Your task to perform on an android device: open device folders in google photos Image 0: 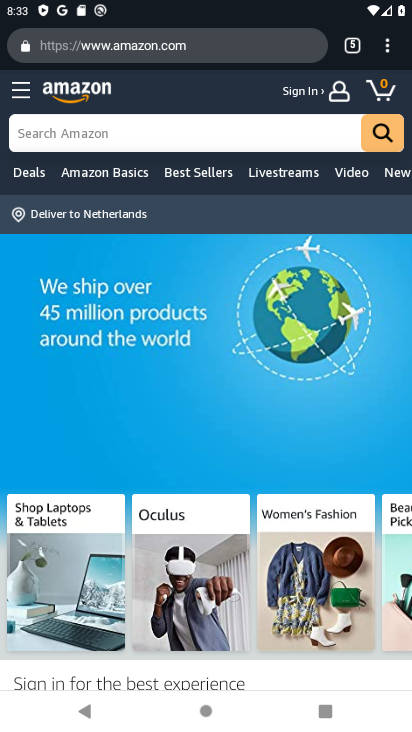
Step 0: press back button
Your task to perform on an android device: open device folders in google photos Image 1: 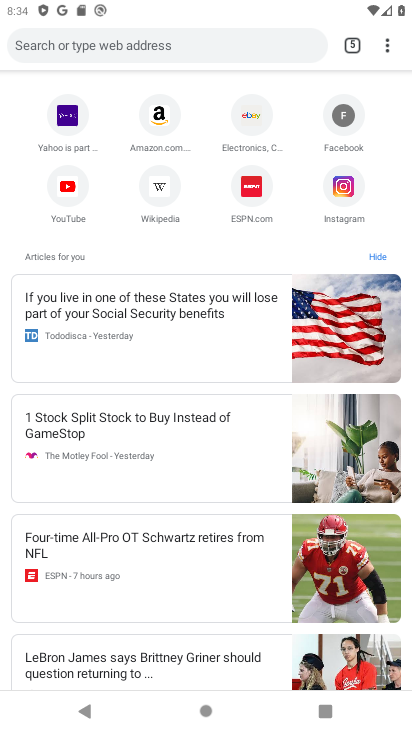
Step 1: press back button
Your task to perform on an android device: open device folders in google photos Image 2: 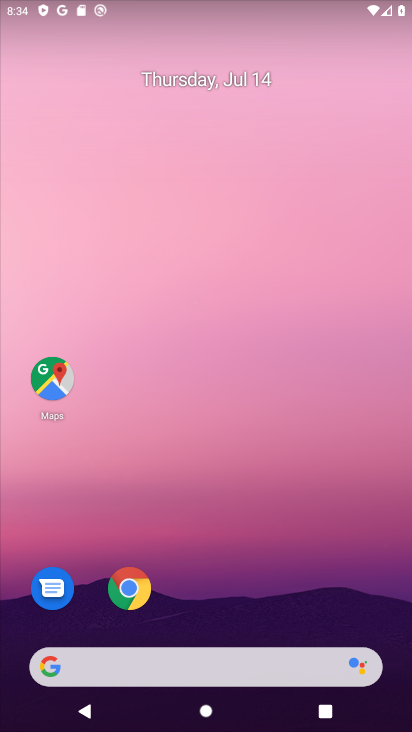
Step 2: drag from (252, 630) to (211, 272)
Your task to perform on an android device: open device folders in google photos Image 3: 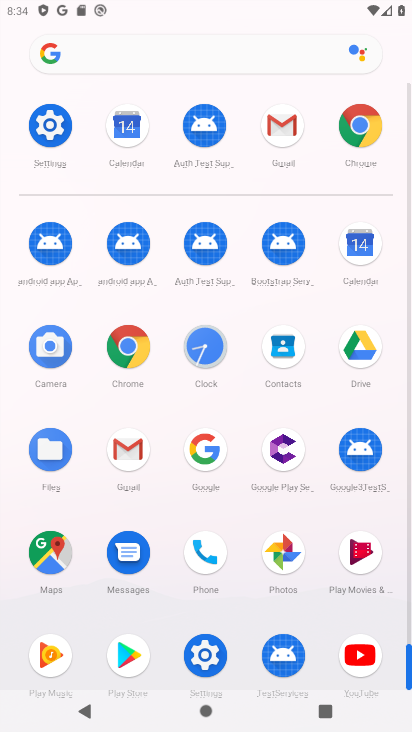
Step 3: click (270, 560)
Your task to perform on an android device: open device folders in google photos Image 4: 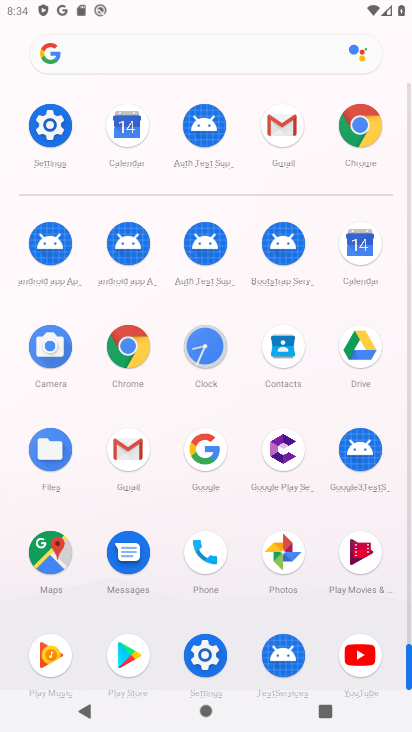
Step 4: click (270, 560)
Your task to perform on an android device: open device folders in google photos Image 5: 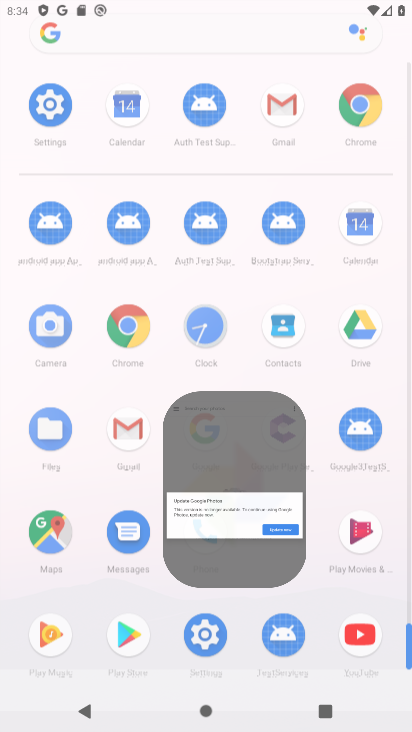
Step 5: click (272, 560)
Your task to perform on an android device: open device folders in google photos Image 6: 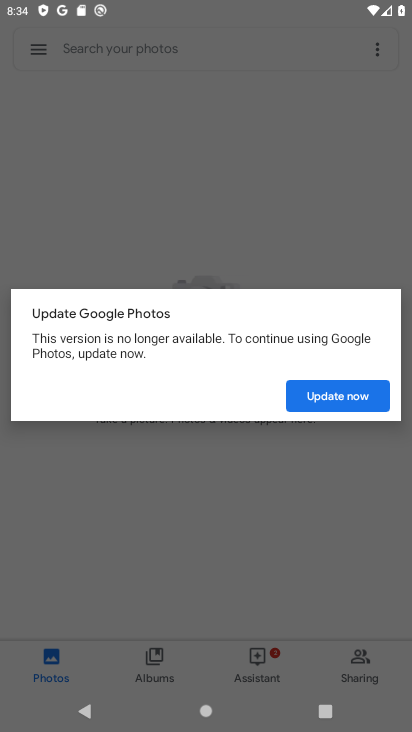
Step 6: press back button
Your task to perform on an android device: open device folders in google photos Image 7: 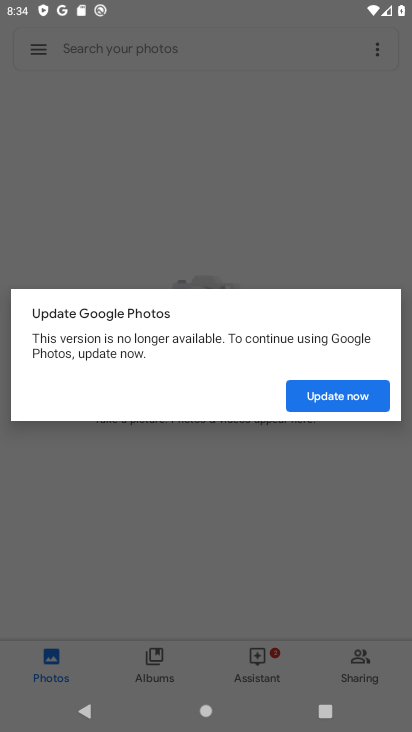
Step 7: press back button
Your task to perform on an android device: open device folders in google photos Image 8: 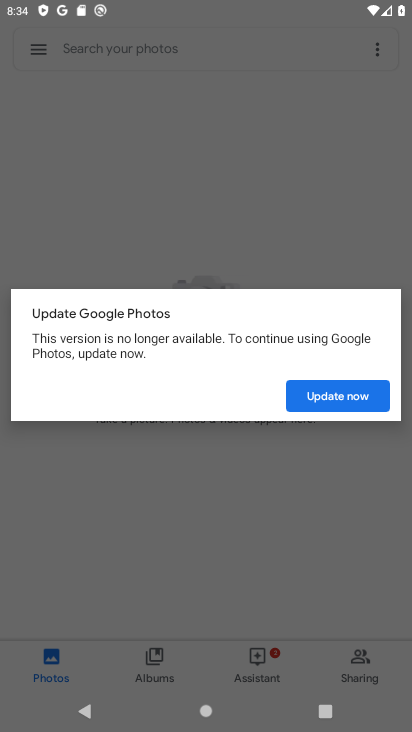
Step 8: click (109, 161)
Your task to perform on an android device: open device folders in google photos Image 9: 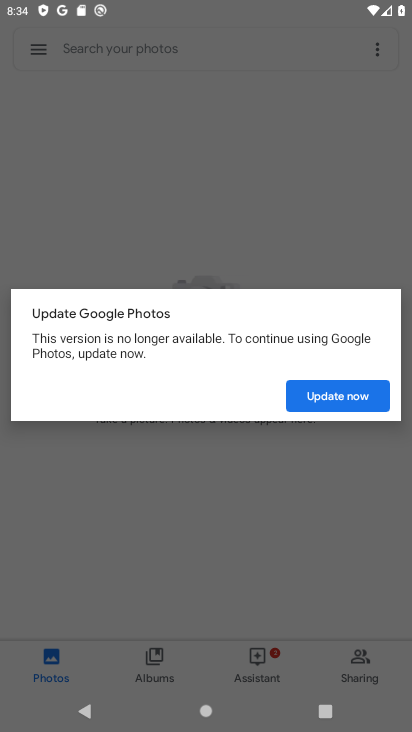
Step 9: click (117, 159)
Your task to perform on an android device: open device folders in google photos Image 10: 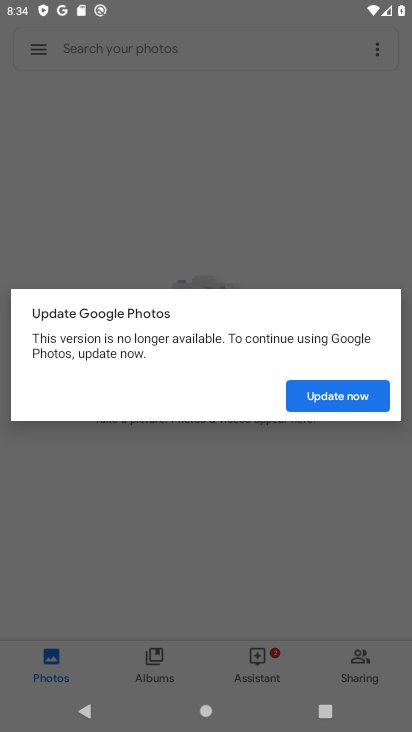
Step 10: press home button
Your task to perform on an android device: open device folders in google photos Image 11: 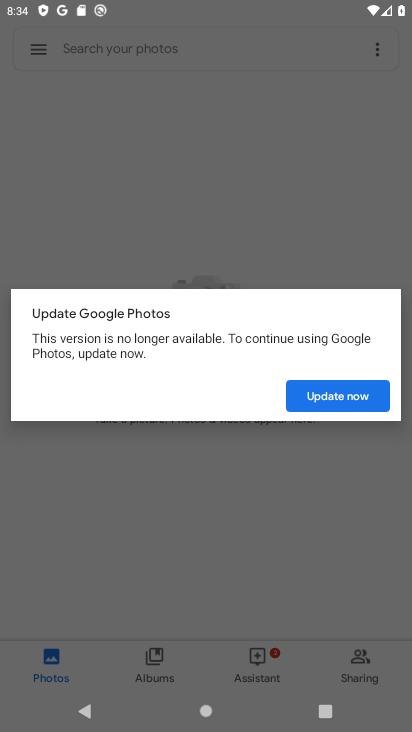
Step 11: press home button
Your task to perform on an android device: open device folders in google photos Image 12: 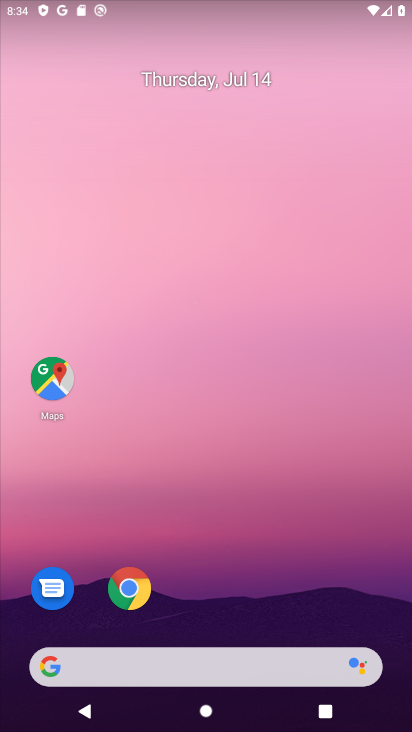
Step 12: drag from (282, 663) to (134, 258)
Your task to perform on an android device: open device folders in google photos Image 13: 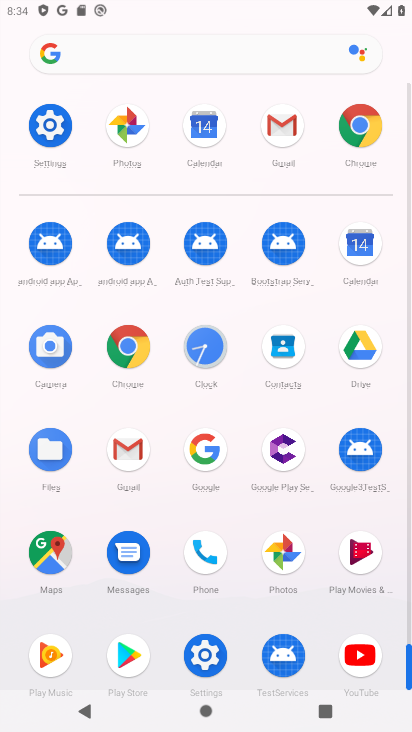
Step 13: click (279, 553)
Your task to perform on an android device: open device folders in google photos Image 14: 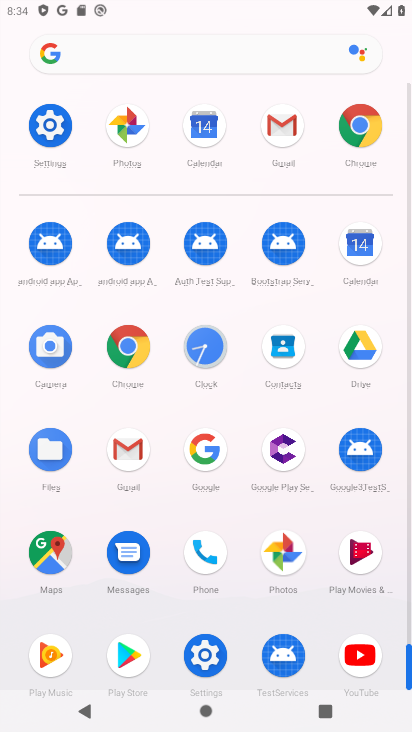
Step 14: click (288, 575)
Your task to perform on an android device: open device folders in google photos Image 15: 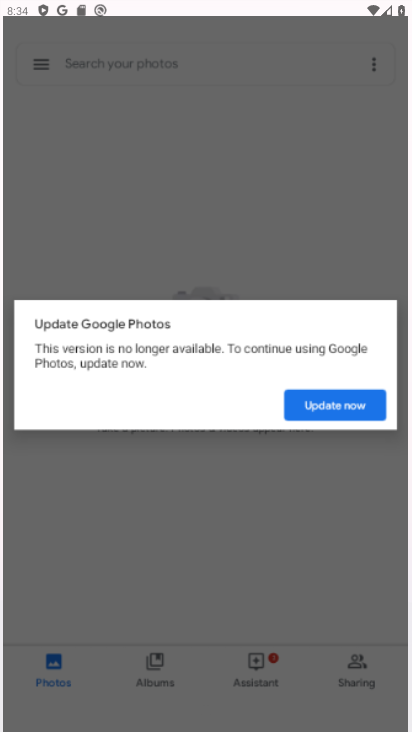
Step 15: click (288, 574)
Your task to perform on an android device: open device folders in google photos Image 16: 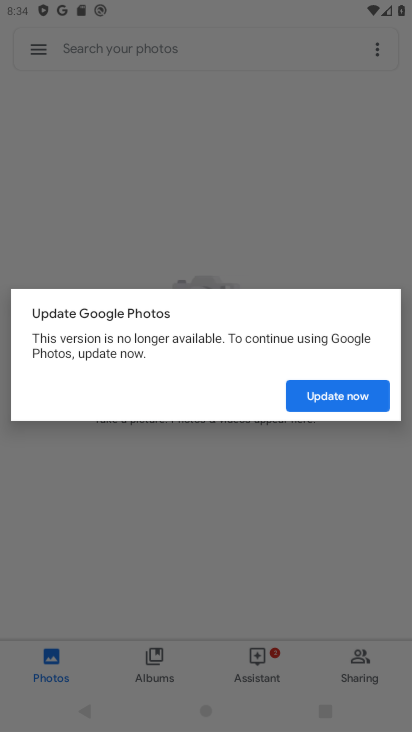
Step 16: click (290, 569)
Your task to perform on an android device: open device folders in google photos Image 17: 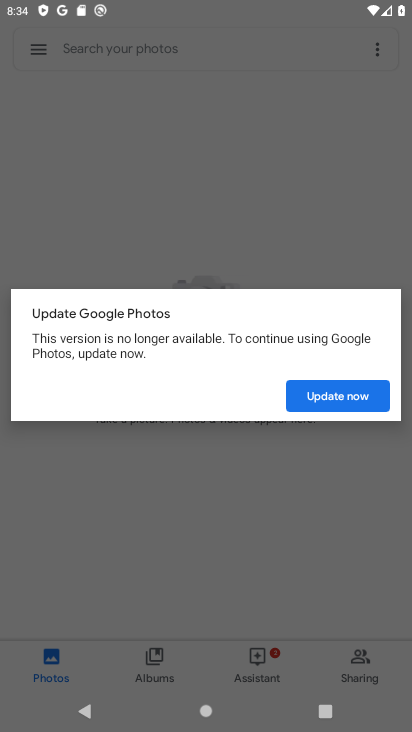
Step 17: click (338, 395)
Your task to perform on an android device: open device folders in google photos Image 18: 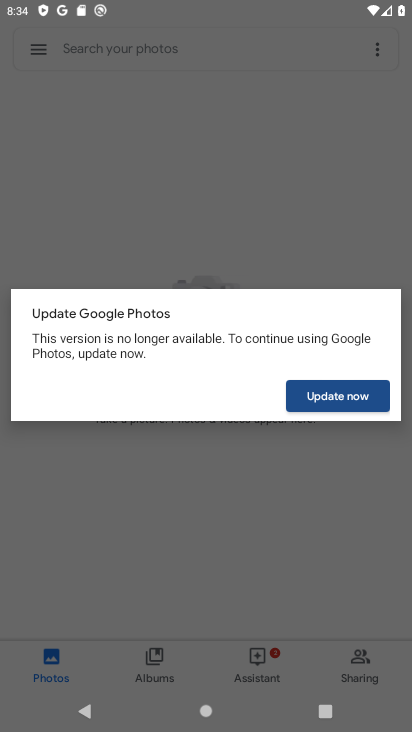
Step 18: click (338, 395)
Your task to perform on an android device: open device folders in google photos Image 19: 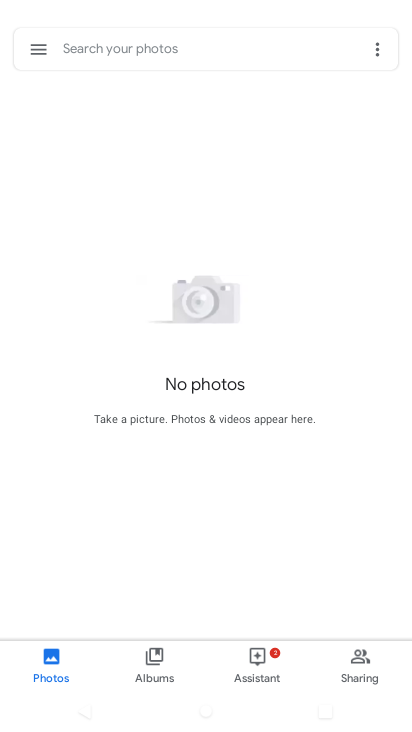
Step 19: click (338, 395)
Your task to perform on an android device: open device folders in google photos Image 20: 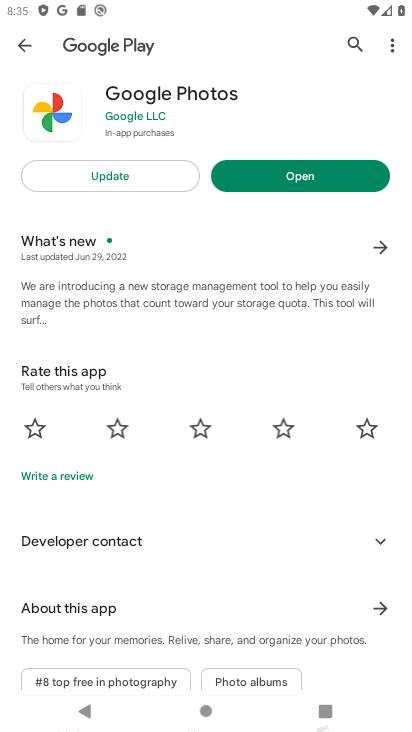
Step 20: click (19, 45)
Your task to perform on an android device: open device folders in google photos Image 21: 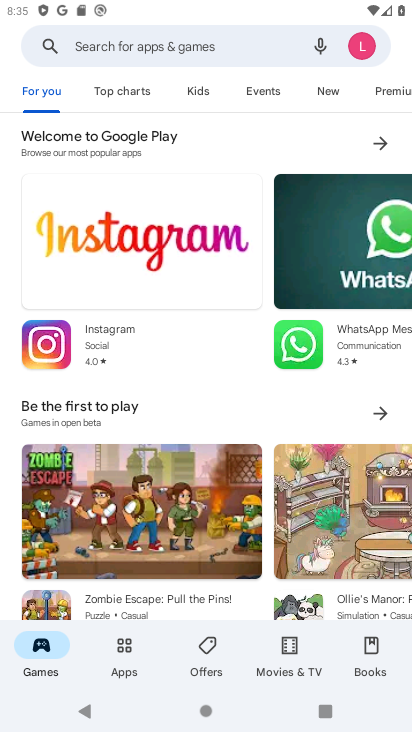
Step 21: press back button
Your task to perform on an android device: open device folders in google photos Image 22: 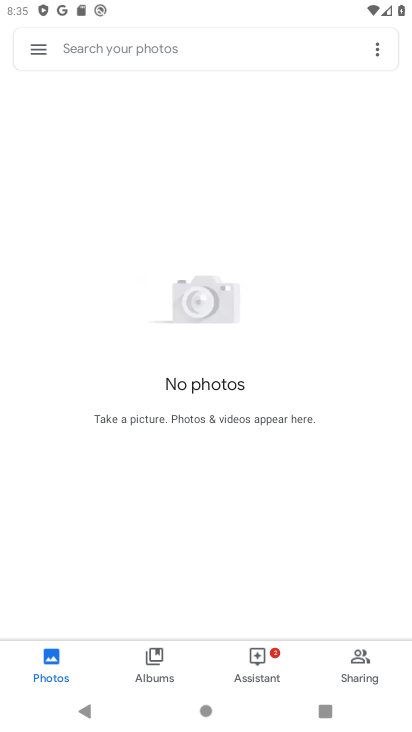
Step 22: click (42, 48)
Your task to perform on an android device: open device folders in google photos Image 23: 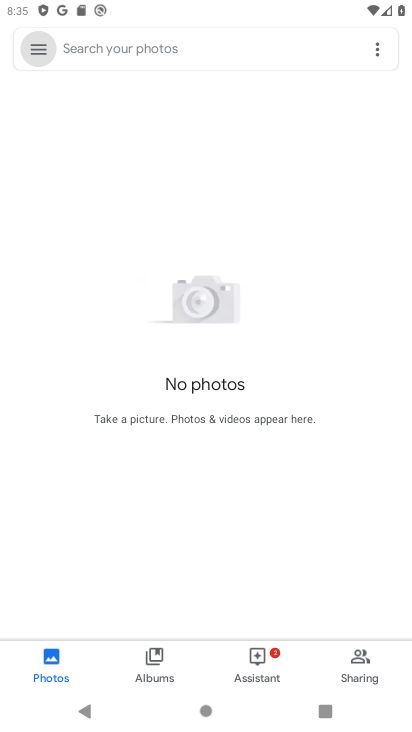
Step 23: click (44, 50)
Your task to perform on an android device: open device folders in google photos Image 24: 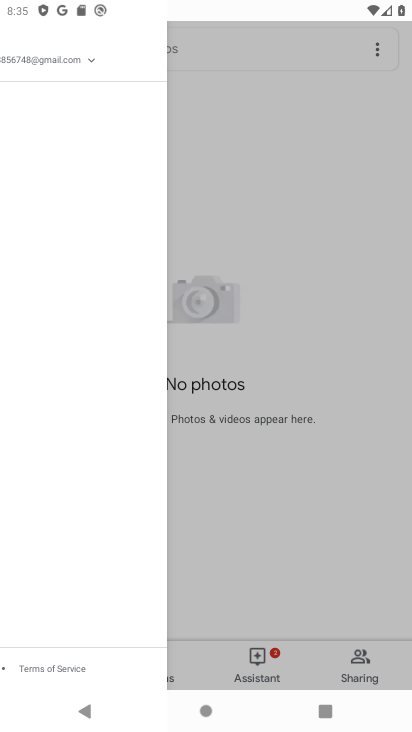
Step 24: drag from (44, 50) to (55, 108)
Your task to perform on an android device: open device folders in google photos Image 25: 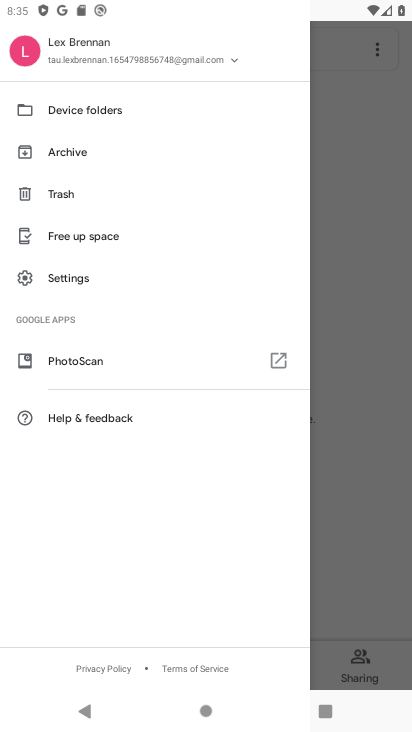
Step 25: click (55, 111)
Your task to perform on an android device: open device folders in google photos Image 26: 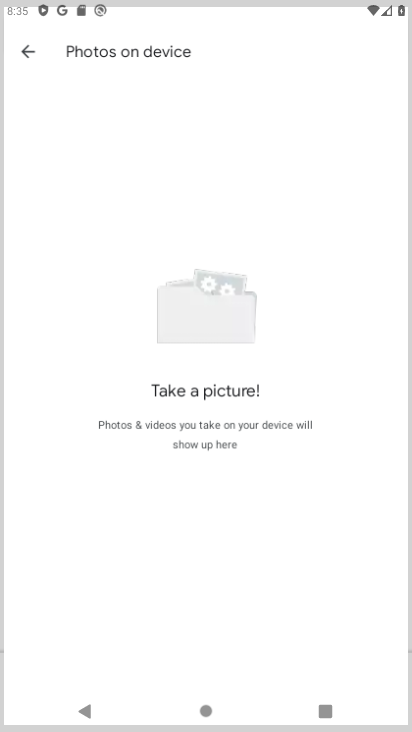
Step 26: click (50, 115)
Your task to perform on an android device: open device folders in google photos Image 27: 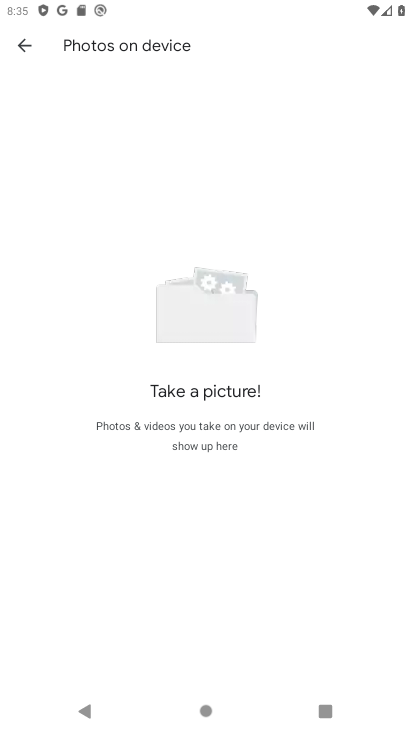
Step 27: task complete